Your task to perform on an android device: clear all cookies in the chrome app Image 0: 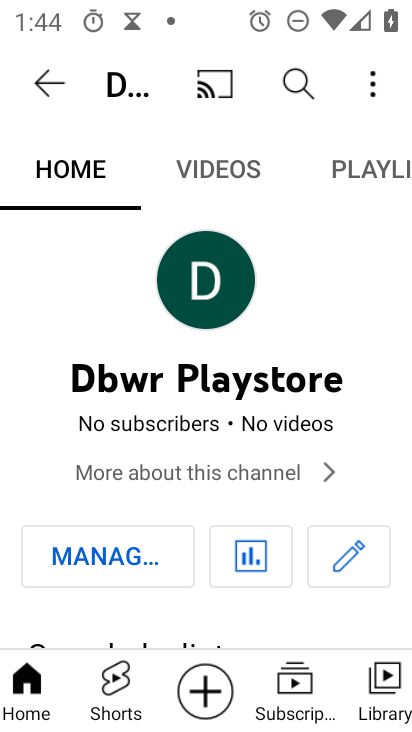
Step 0: press home button
Your task to perform on an android device: clear all cookies in the chrome app Image 1: 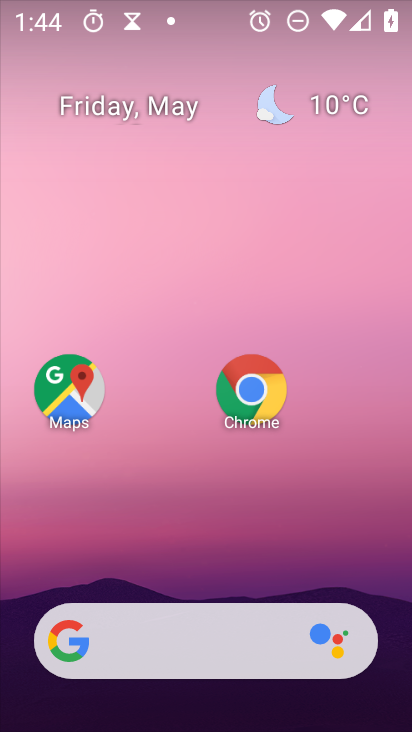
Step 1: click (265, 397)
Your task to perform on an android device: clear all cookies in the chrome app Image 2: 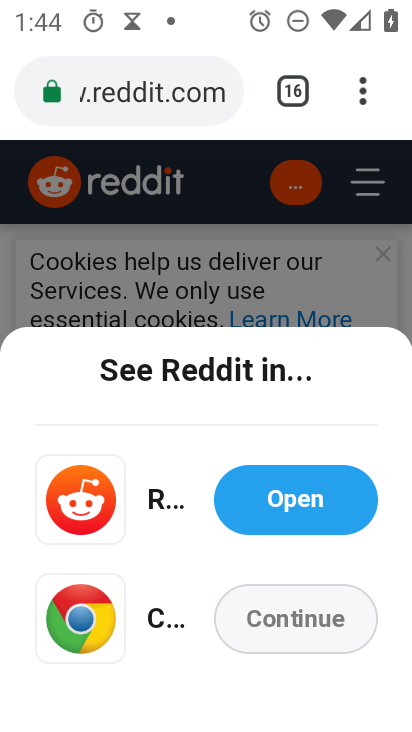
Step 2: drag from (365, 102) to (216, 570)
Your task to perform on an android device: clear all cookies in the chrome app Image 3: 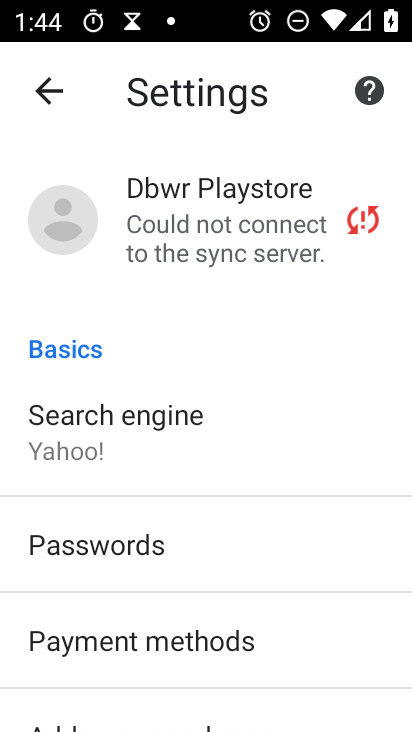
Step 3: drag from (178, 549) to (277, 303)
Your task to perform on an android device: clear all cookies in the chrome app Image 4: 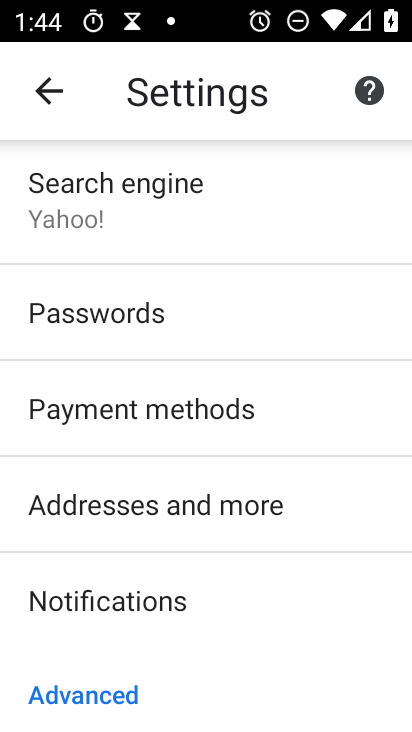
Step 4: drag from (193, 672) to (270, 444)
Your task to perform on an android device: clear all cookies in the chrome app Image 5: 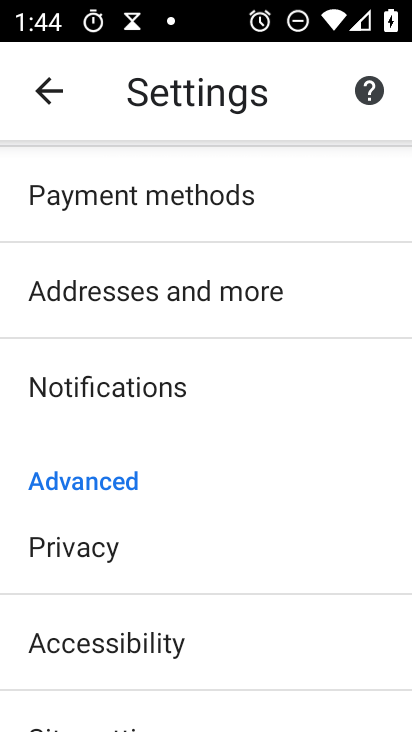
Step 5: click (58, 549)
Your task to perform on an android device: clear all cookies in the chrome app Image 6: 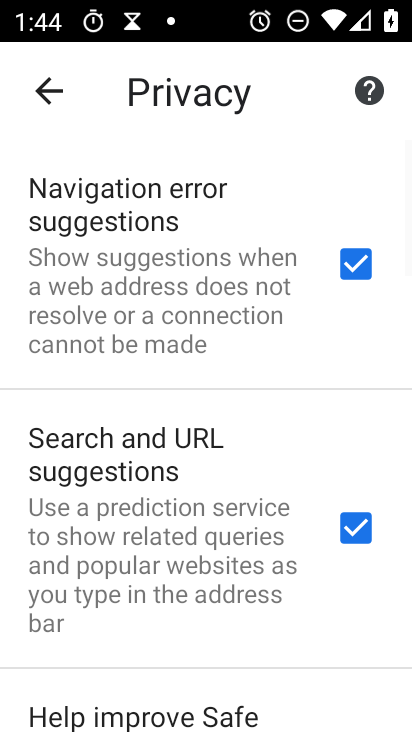
Step 6: drag from (89, 651) to (265, 147)
Your task to perform on an android device: clear all cookies in the chrome app Image 7: 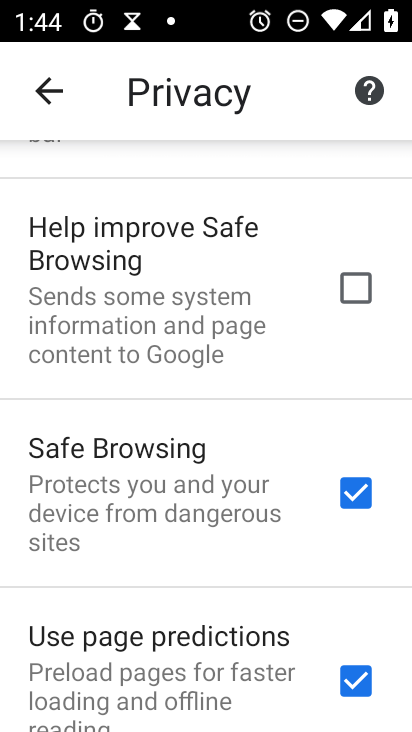
Step 7: drag from (142, 630) to (374, 64)
Your task to perform on an android device: clear all cookies in the chrome app Image 8: 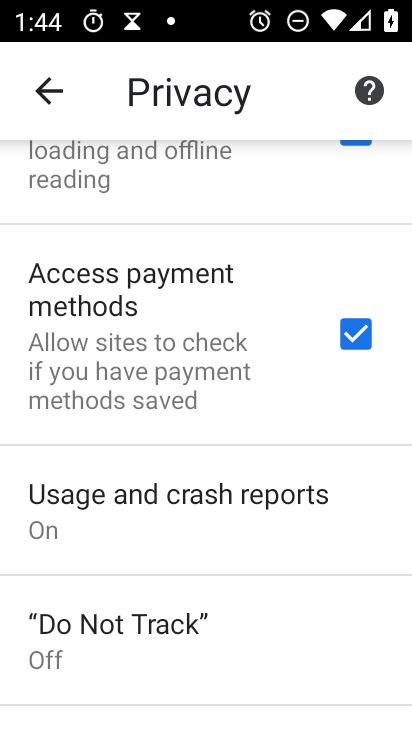
Step 8: drag from (204, 653) to (406, 90)
Your task to perform on an android device: clear all cookies in the chrome app Image 9: 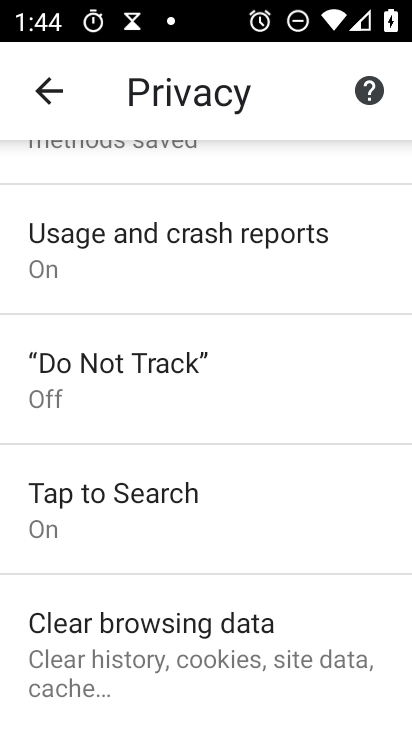
Step 9: click (190, 625)
Your task to perform on an android device: clear all cookies in the chrome app Image 10: 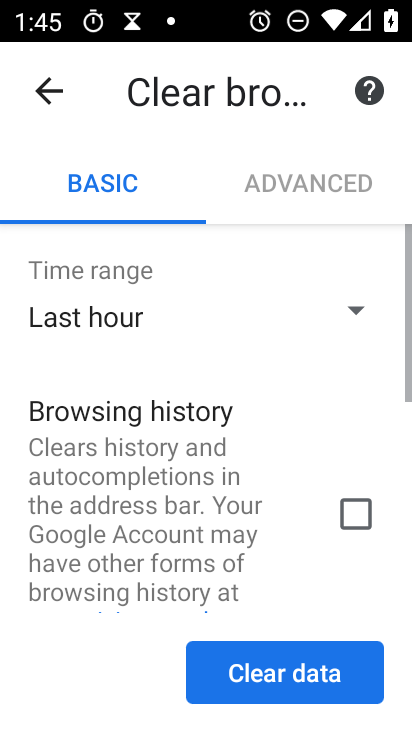
Step 10: drag from (212, 563) to (321, 203)
Your task to perform on an android device: clear all cookies in the chrome app Image 11: 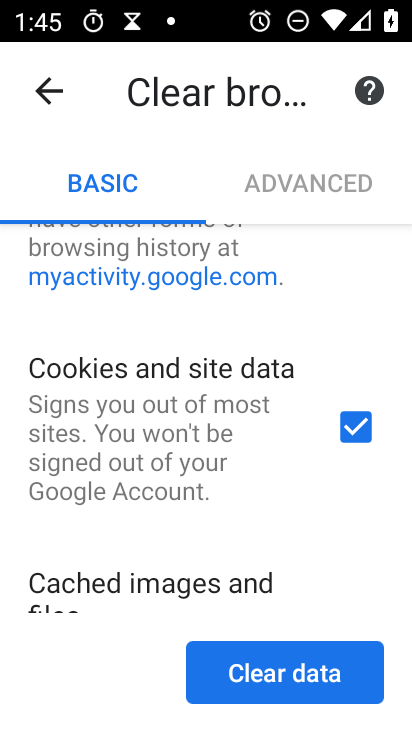
Step 11: click (280, 680)
Your task to perform on an android device: clear all cookies in the chrome app Image 12: 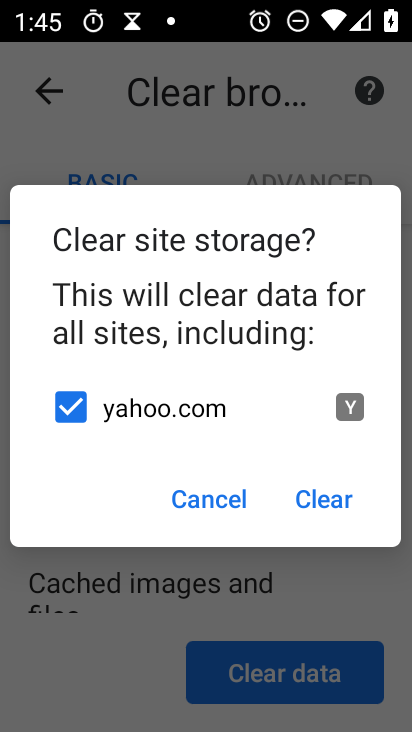
Step 12: click (331, 500)
Your task to perform on an android device: clear all cookies in the chrome app Image 13: 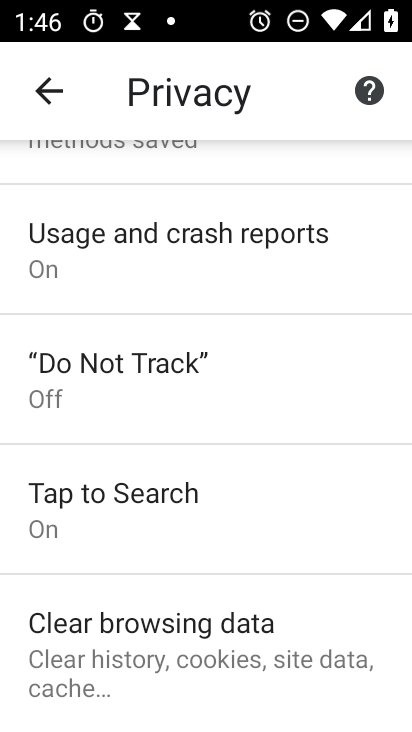
Step 13: task complete